Your task to perform on an android device: open sync settings in chrome Image 0: 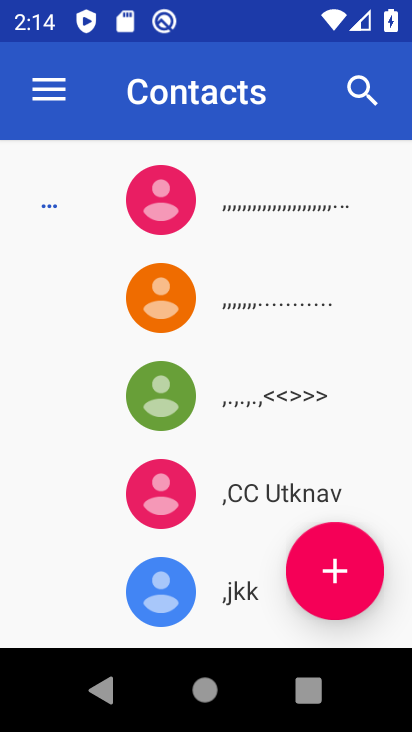
Step 0: press home button
Your task to perform on an android device: open sync settings in chrome Image 1: 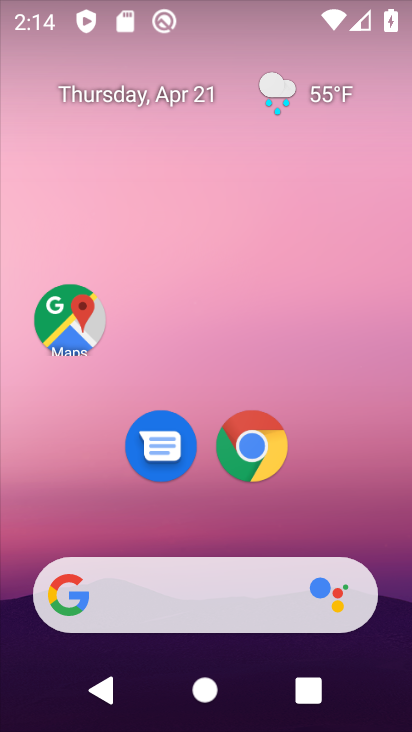
Step 1: click (251, 444)
Your task to perform on an android device: open sync settings in chrome Image 2: 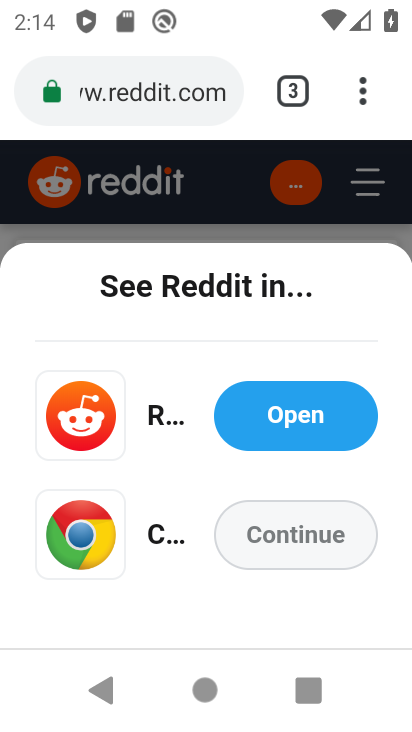
Step 2: drag from (363, 97) to (239, 443)
Your task to perform on an android device: open sync settings in chrome Image 3: 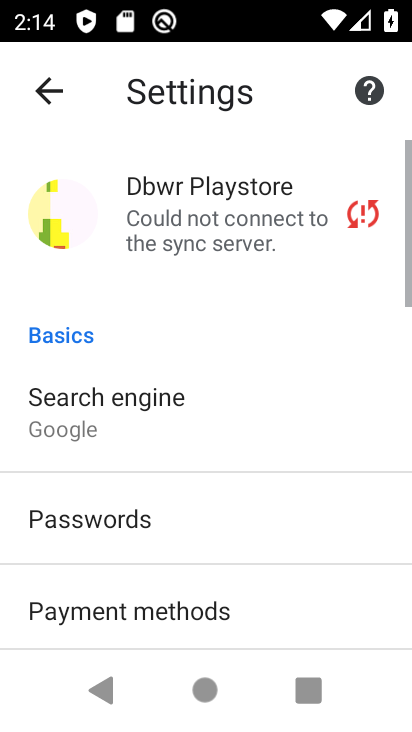
Step 3: drag from (226, 617) to (231, 279)
Your task to perform on an android device: open sync settings in chrome Image 4: 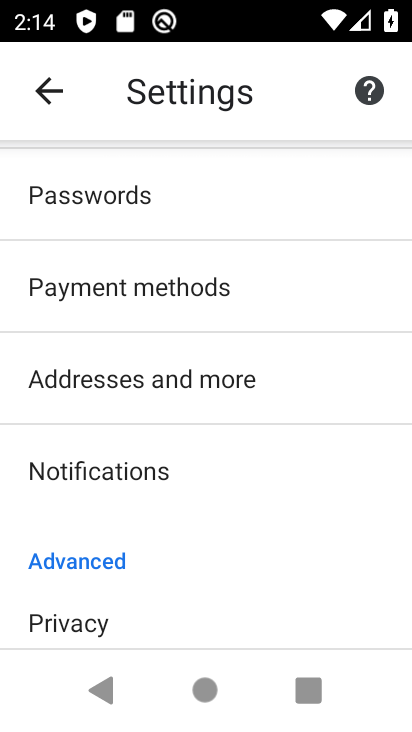
Step 4: drag from (211, 612) to (212, 252)
Your task to perform on an android device: open sync settings in chrome Image 5: 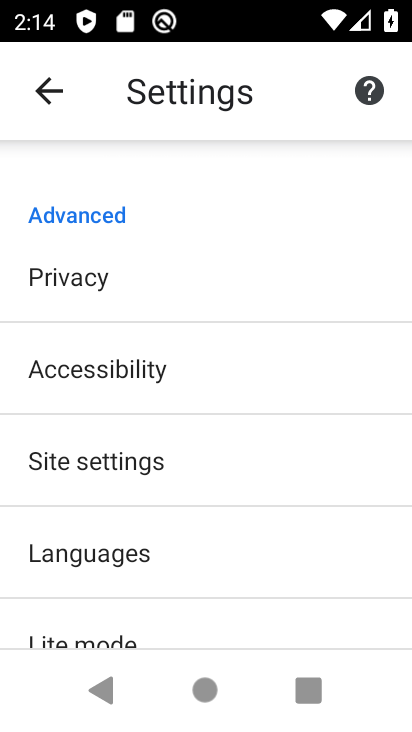
Step 5: click (140, 462)
Your task to perform on an android device: open sync settings in chrome Image 6: 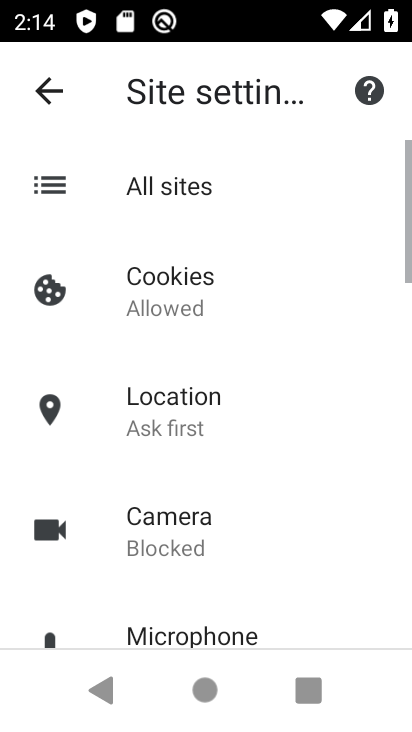
Step 6: drag from (218, 596) to (199, 222)
Your task to perform on an android device: open sync settings in chrome Image 7: 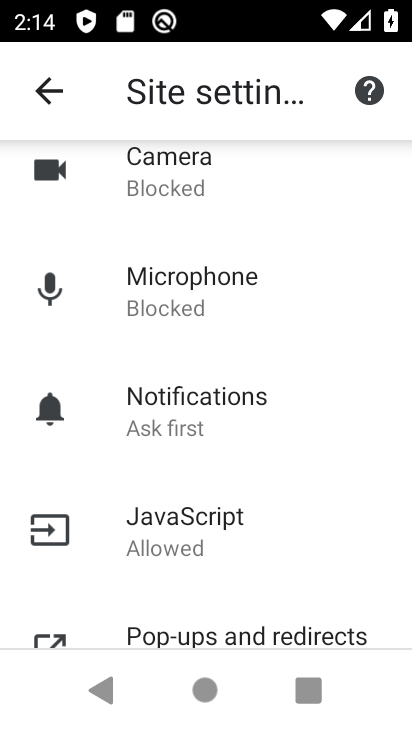
Step 7: drag from (227, 590) to (209, 213)
Your task to perform on an android device: open sync settings in chrome Image 8: 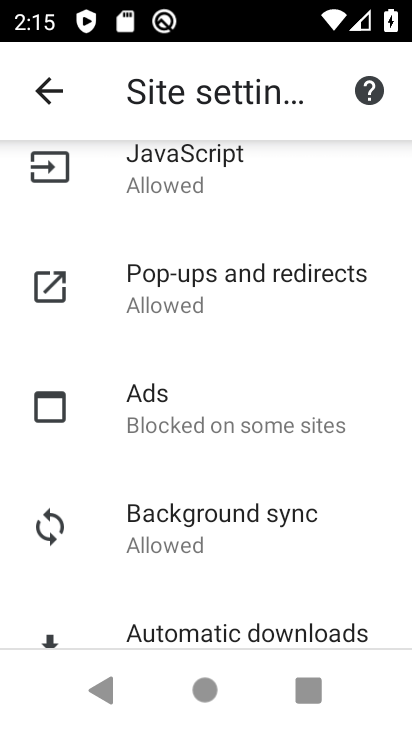
Step 8: click (218, 508)
Your task to perform on an android device: open sync settings in chrome Image 9: 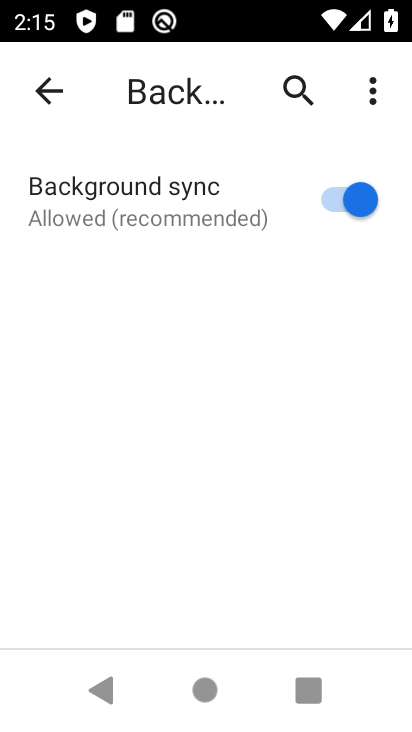
Step 9: task complete